Your task to perform on an android device: Open calendar and show me the third week of next month Image 0: 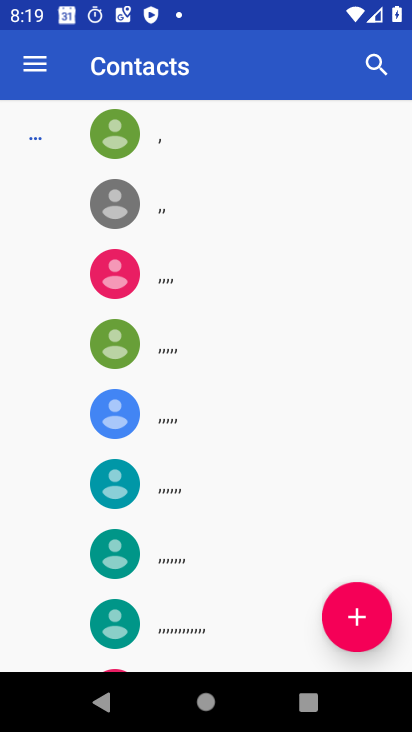
Step 0: press back button
Your task to perform on an android device: Open calendar and show me the third week of next month Image 1: 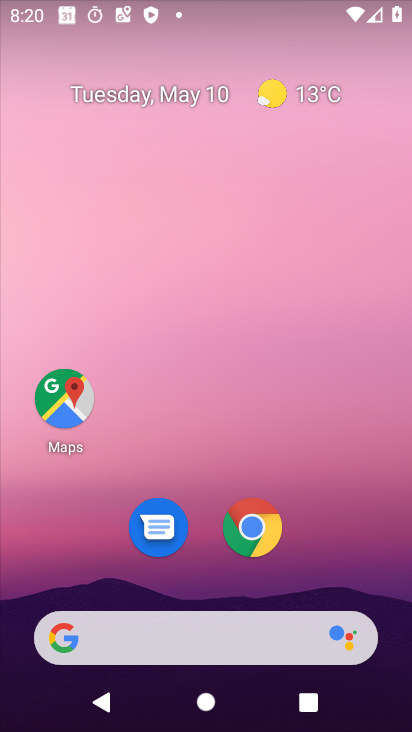
Step 1: drag from (25, 610) to (239, 58)
Your task to perform on an android device: Open calendar and show me the third week of next month Image 2: 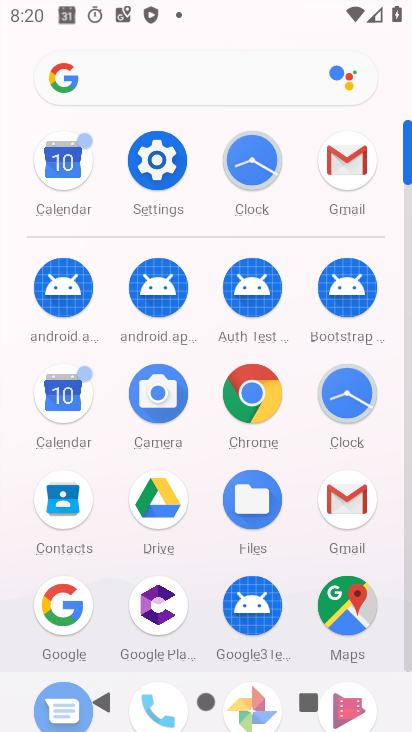
Step 2: click (75, 396)
Your task to perform on an android device: Open calendar and show me the third week of next month Image 3: 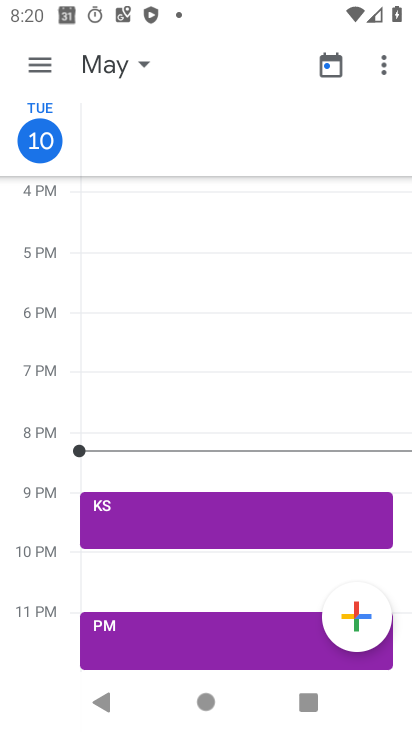
Step 3: click (47, 62)
Your task to perform on an android device: Open calendar and show me the third week of next month Image 4: 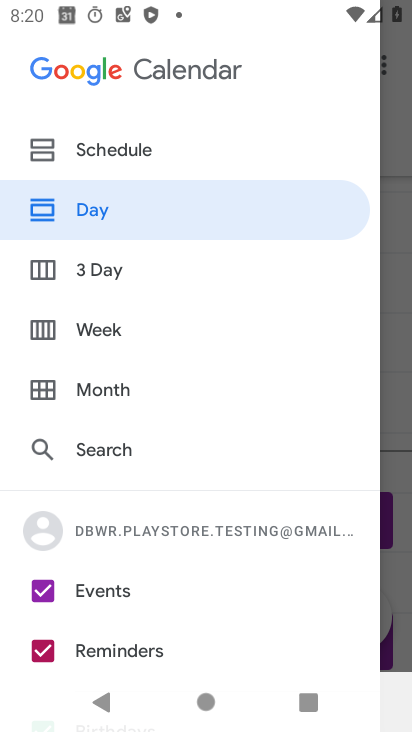
Step 4: click (396, 353)
Your task to perform on an android device: Open calendar and show me the third week of next month Image 5: 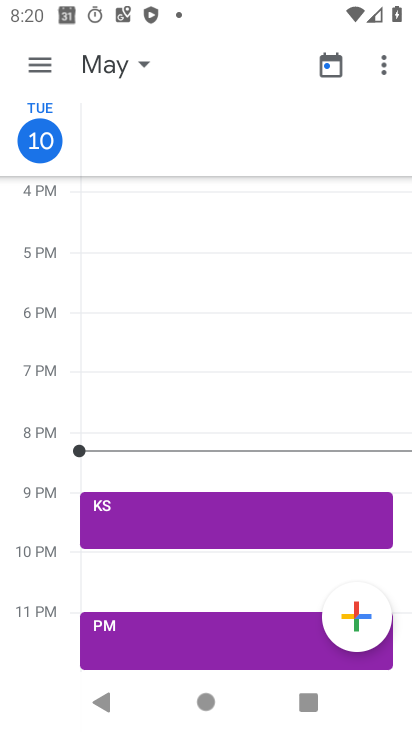
Step 5: click (119, 62)
Your task to perform on an android device: Open calendar and show me the third week of next month Image 6: 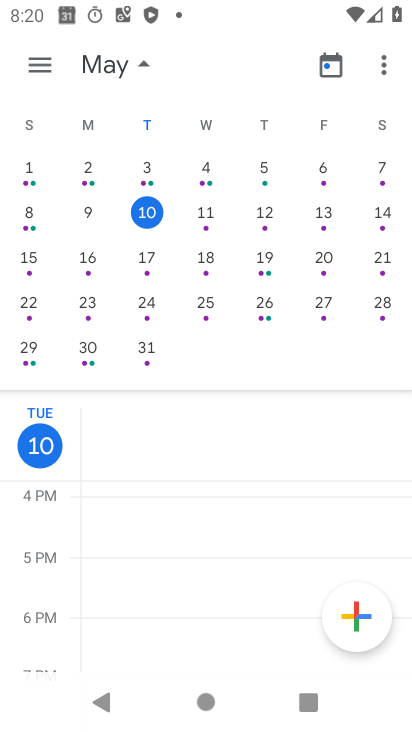
Step 6: drag from (388, 285) to (34, 208)
Your task to perform on an android device: Open calendar and show me the third week of next month Image 7: 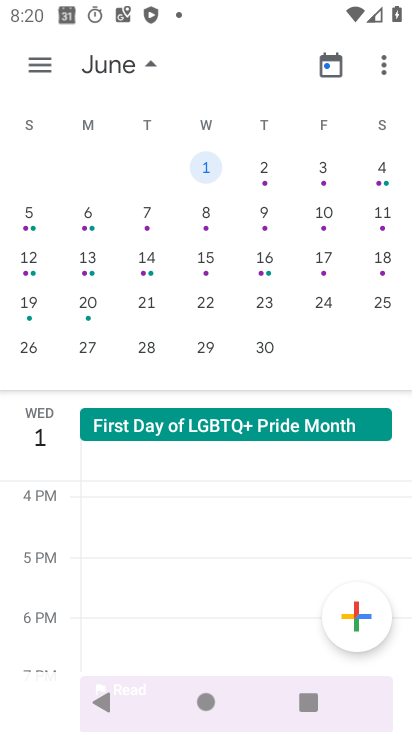
Step 7: click (262, 167)
Your task to perform on an android device: Open calendar and show me the third week of next month Image 8: 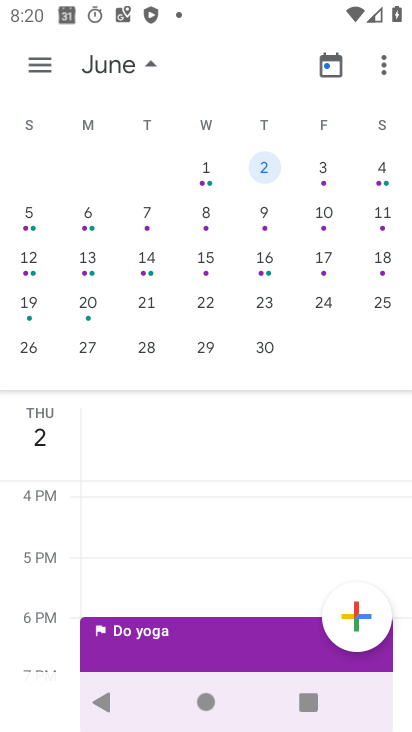
Step 8: click (323, 168)
Your task to perform on an android device: Open calendar and show me the third week of next month Image 9: 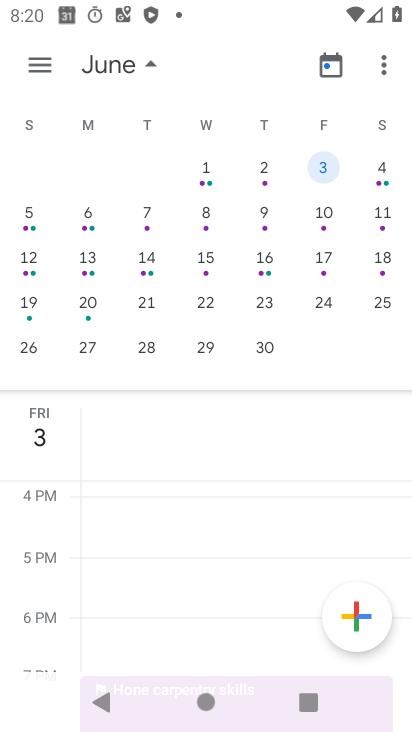
Step 9: click (380, 164)
Your task to perform on an android device: Open calendar and show me the third week of next month Image 10: 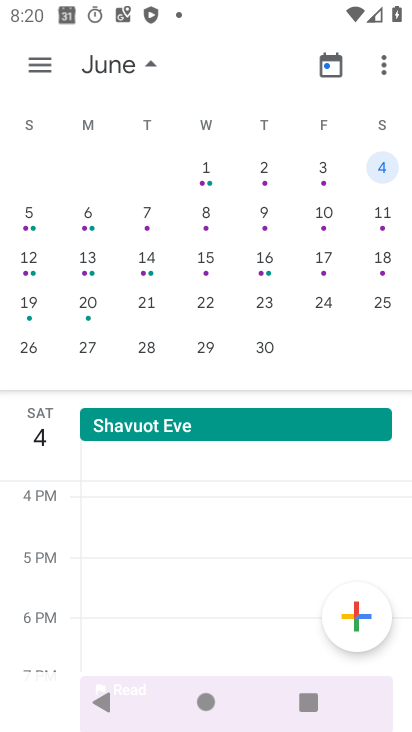
Step 10: click (38, 223)
Your task to perform on an android device: Open calendar and show me the third week of next month Image 11: 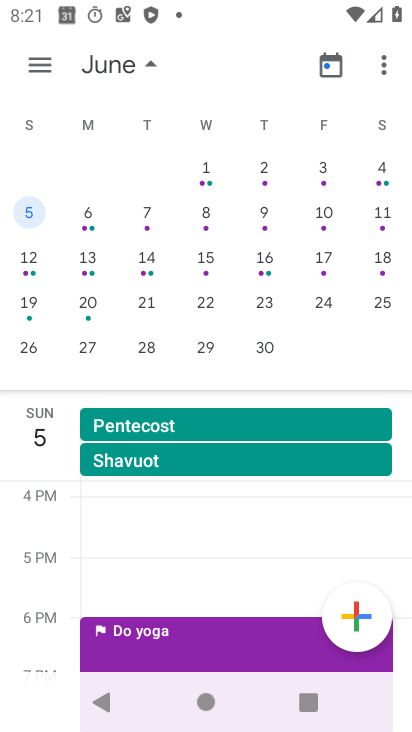
Step 11: click (93, 220)
Your task to perform on an android device: Open calendar and show me the third week of next month Image 12: 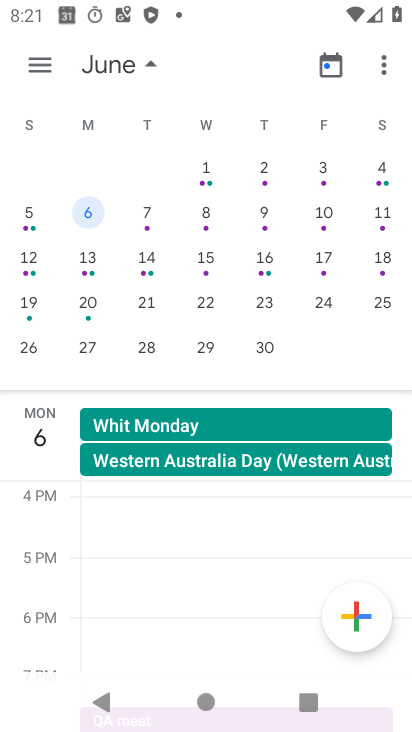
Step 12: click (152, 219)
Your task to perform on an android device: Open calendar and show me the third week of next month Image 13: 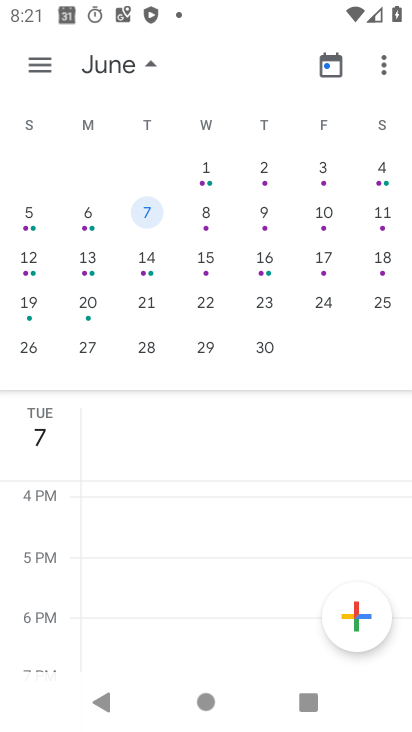
Step 13: click (212, 224)
Your task to perform on an android device: Open calendar and show me the third week of next month Image 14: 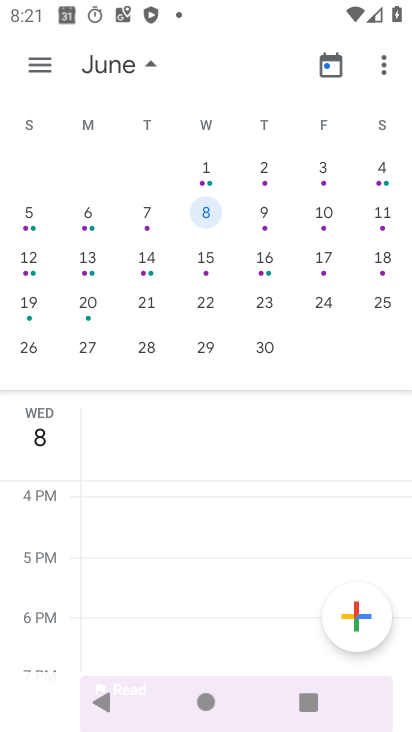
Step 14: click (253, 217)
Your task to perform on an android device: Open calendar and show me the third week of next month Image 15: 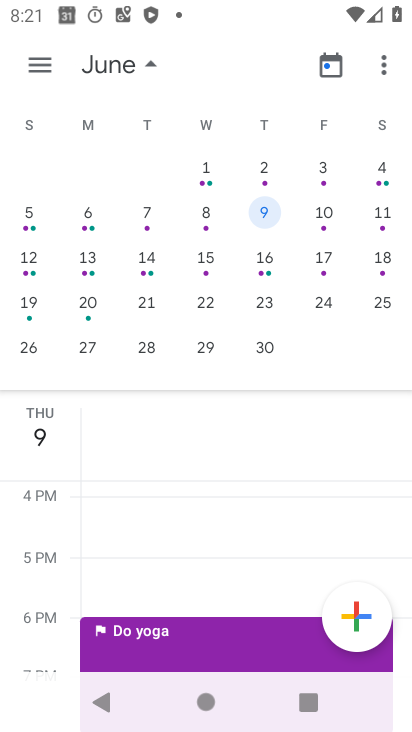
Step 15: click (205, 263)
Your task to perform on an android device: Open calendar and show me the third week of next month Image 16: 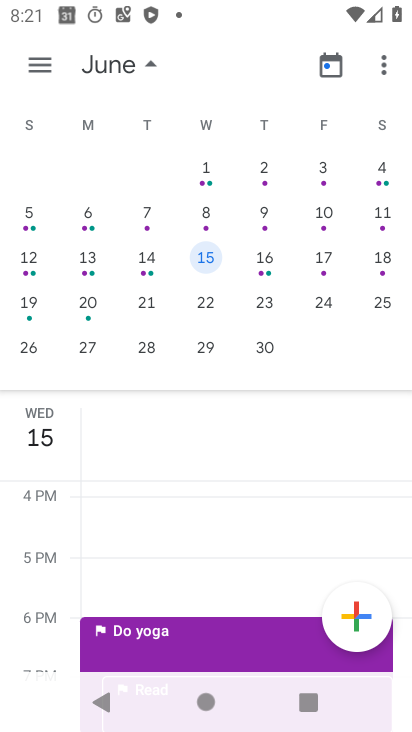
Step 16: click (205, 298)
Your task to perform on an android device: Open calendar and show me the third week of next month Image 17: 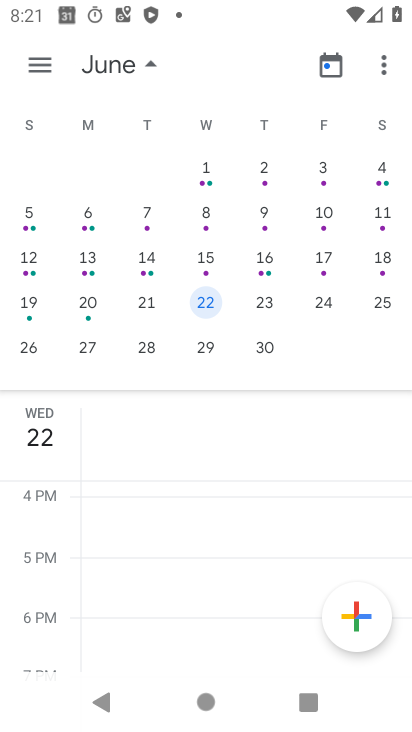
Step 17: task complete